Your task to perform on an android device: What's the weather going to be tomorrow? Image 0: 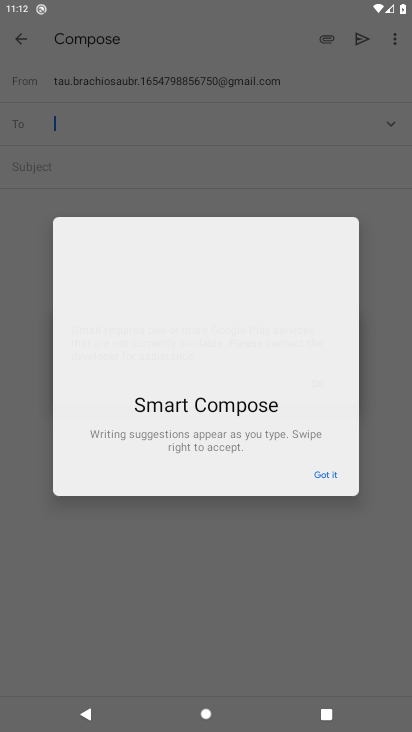
Step 0: drag from (211, 647) to (259, 182)
Your task to perform on an android device: What's the weather going to be tomorrow? Image 1: 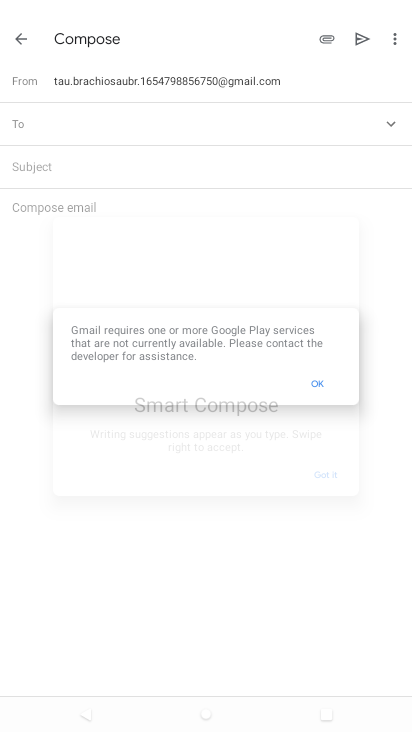
Step 1: press home button
Your task to perform on an android device: What's the weather going to be tomorrow? Image 2: 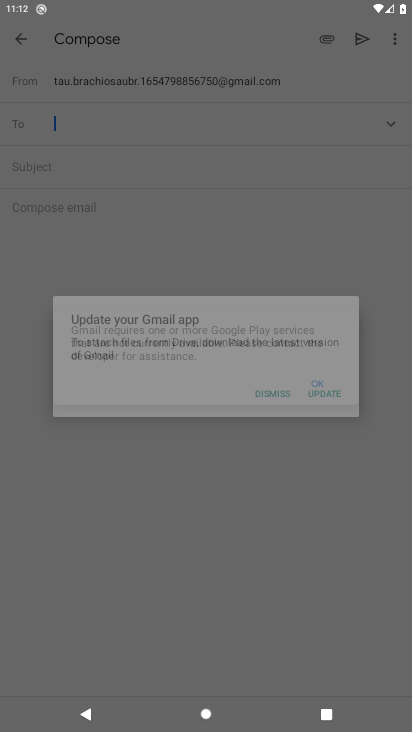
Step 2: press home button
Your task to perform on an android device: What's the weather going to be tomorrow? Image 3: 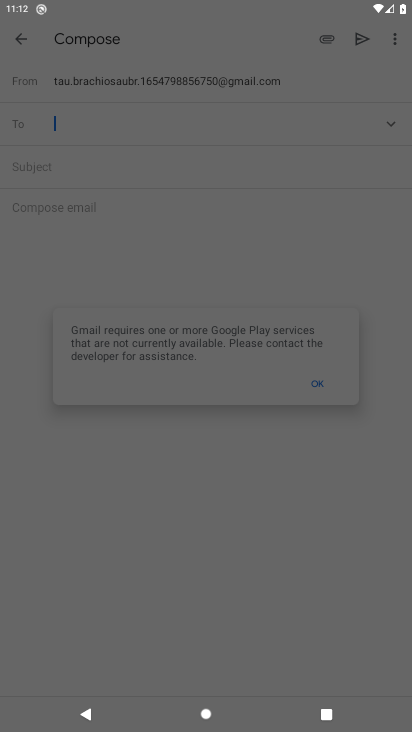
Step 3: drag from (239, 322) to (320, 119)
Your task to perform on an android device: What's the weather going to be tomorrow? Image 4: 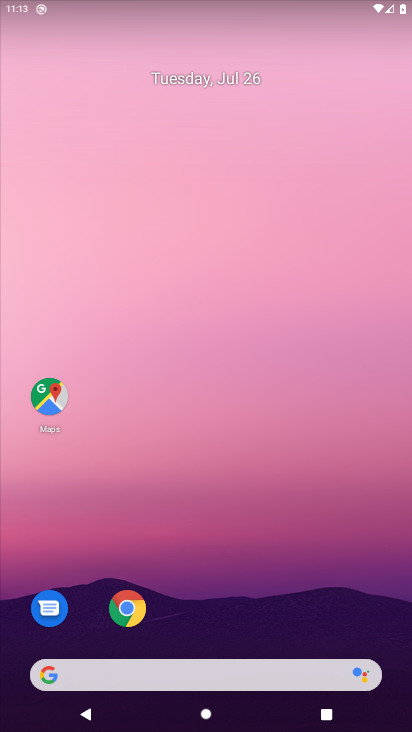
Step 4: drag from (197, 644) to (275, 51)
Your task to perform on an android device: What's the weather going to be tomorrow? Image 5: 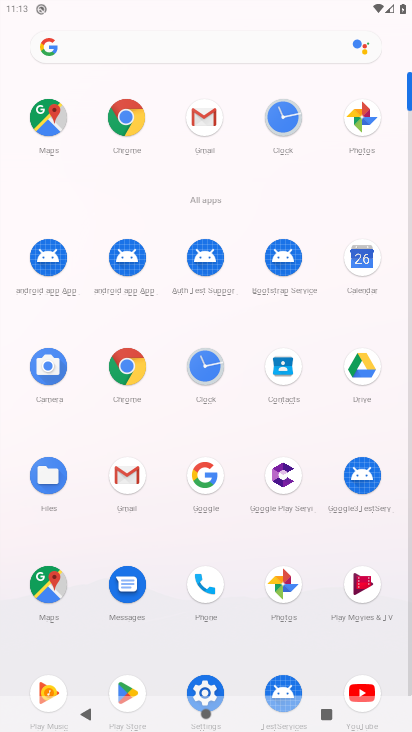
Step 5: click (154, 44)
Your task to perform on an android device: What's the weather going to be tomorrow? Image 6: 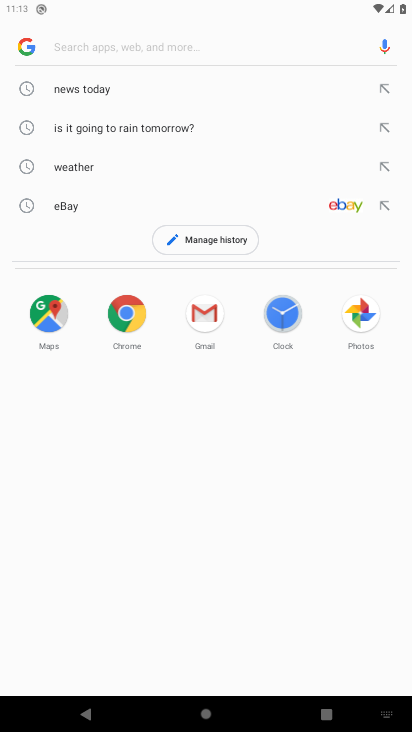
Step 6: type "What's the weather going to be tomorrow?"
Your task to perform on an android device: What's the weather going to be tomorrow? Image 7: 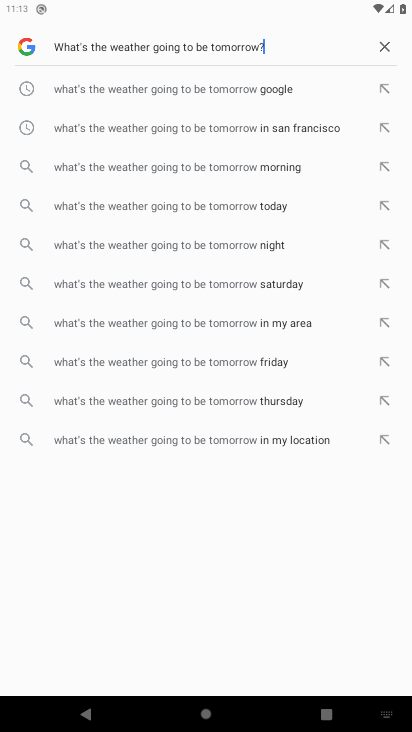
Step 7: type ""
Your task to perform on an android device: What's the weather going to be tomorrow? Image 8: 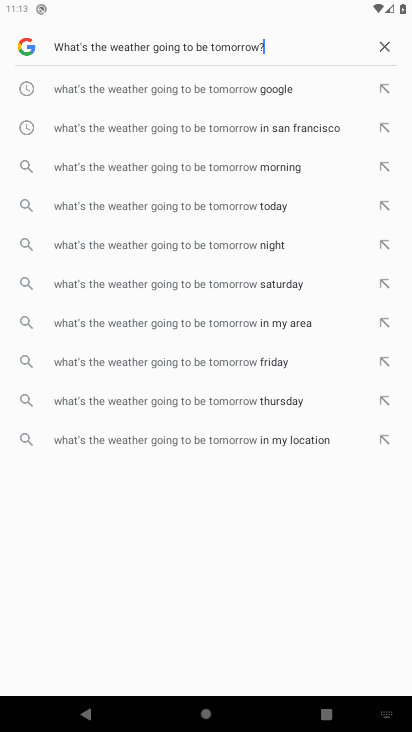
Step 8: click (135, 80)
Your task to perform on an android device: What's the weather going to be tomorrow? Image 9: 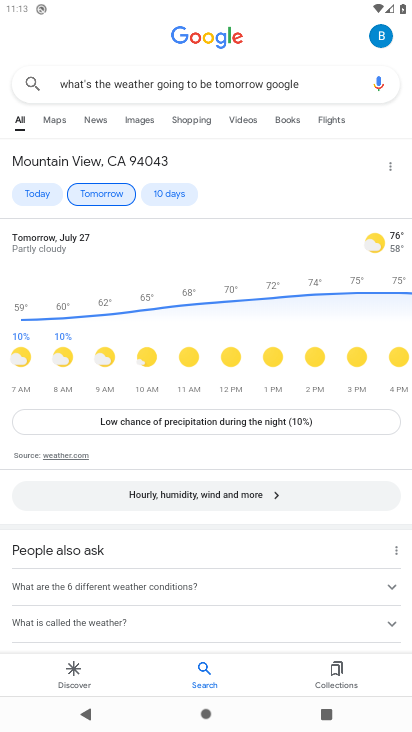
Step 9: task complete